Your task to perform on an android device: Open Chrome and go to settings Image 0: 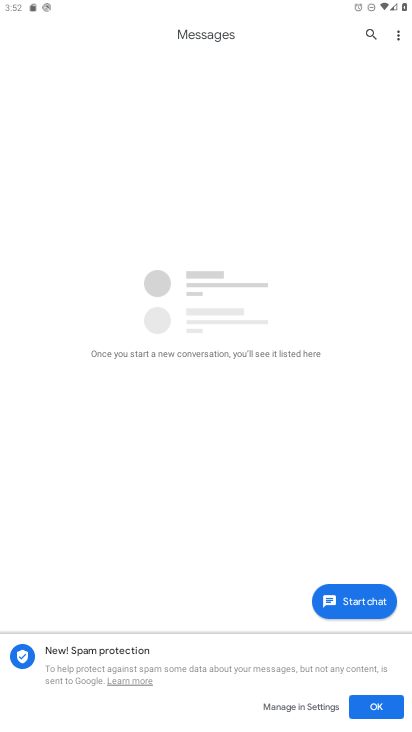
Step 0: press home button
Your task to perform on an android device: Open Chrome and go to settings Image 1: 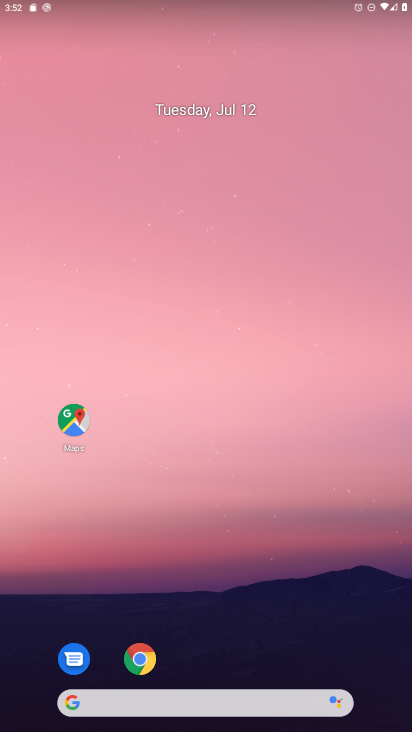
Step 1: click (136, 666)
Your task to perform on an android device: Open Chrome and go to settings Image 2: 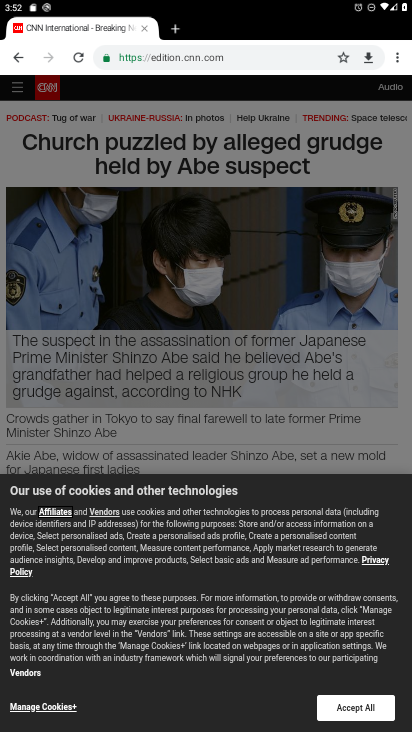
Step 2: click (400, 55)
Your task to perform on an android device: Open Chrome and go to settings Image 3: 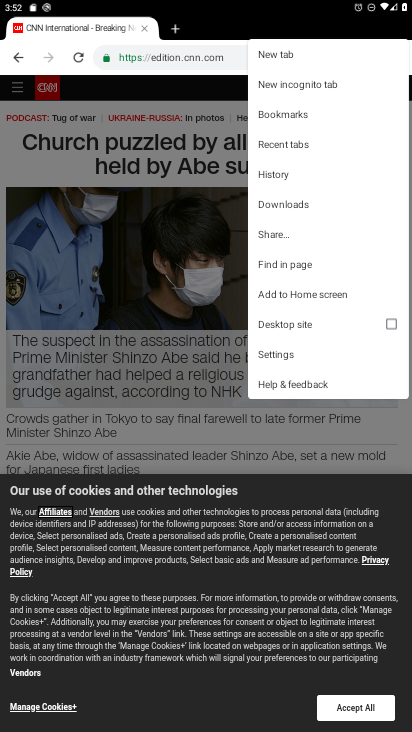
Step 3: click (283, 357)
Your task to perform on an android device: Open Chrome and go to settings Image 4: 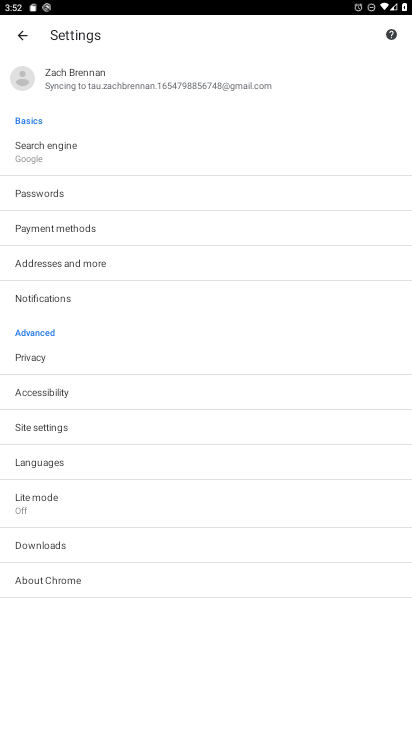
Step 4: task complete